Your task to perform on an android device: change text size in settings app Image 0: 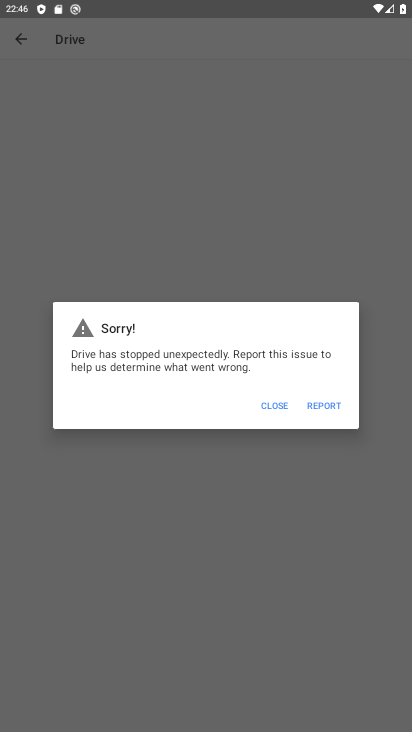
Step 0: press home button
Your task to perform on an android device: change text size in settings app Image 1: 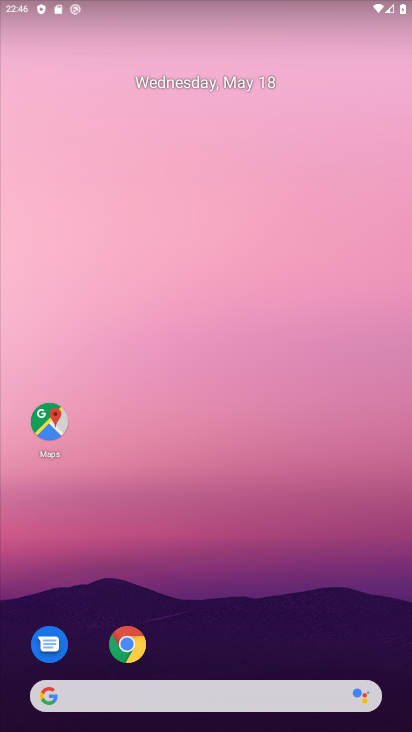
Step 1: drag from (230, 503) to (196, 220)
Your task to perform on an android device: change text size in settings app Image 2: 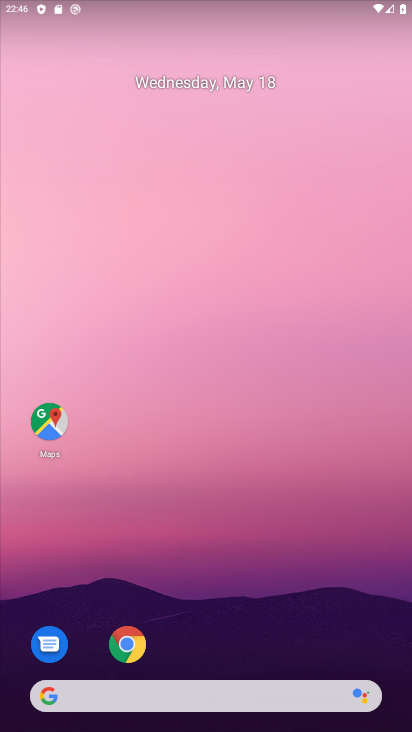
Step 2: drag from (301, 649) to (289, 201)
Your task to perform on an android device: change text size in settings app Image 3: 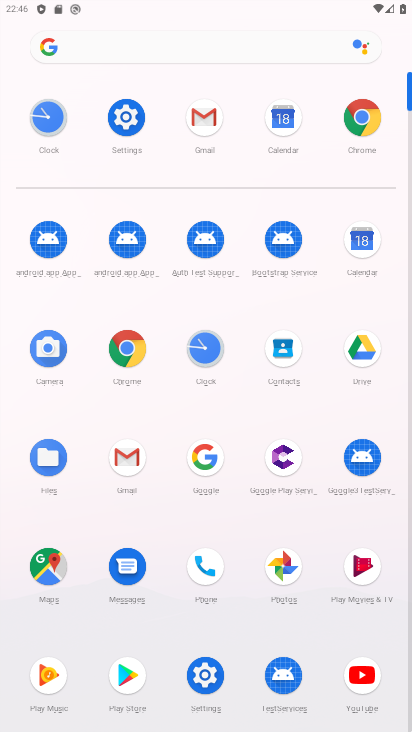
Step 3: click (141, 121)
Your task to perform on an android device: change text size in settings app Image 4: 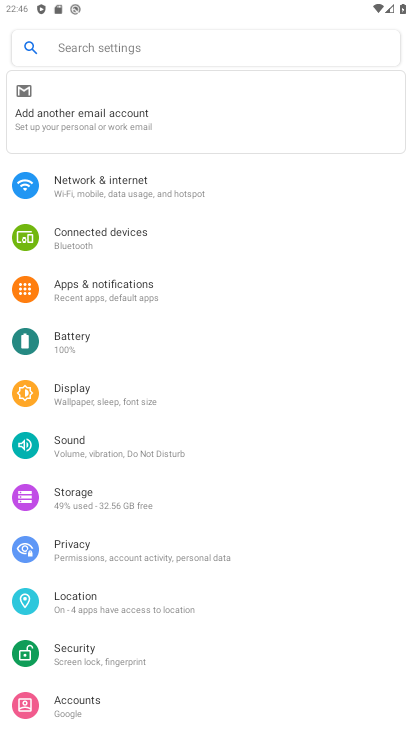
Step 4: drag from (263, 430) to (271, 219)
Your task to perform on an android device: change text size in settings app Image 5: 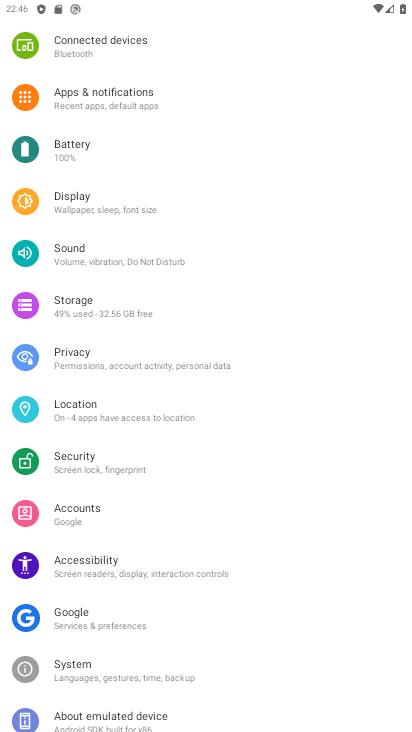
Step 5: click (154, 210)
Your task to perform on an android device: change text size in settings app Image 6: 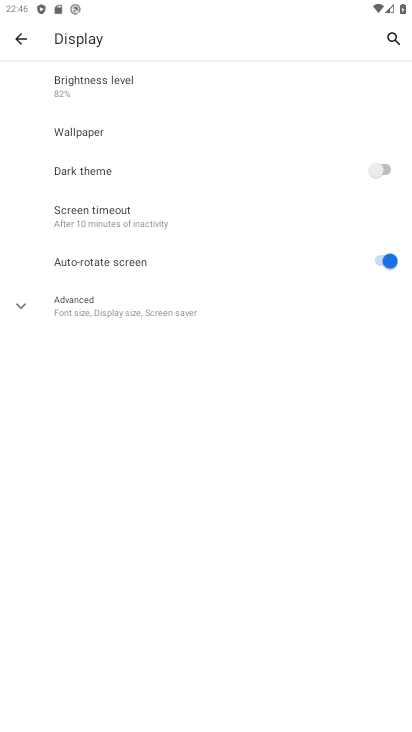
Step 6: click (84, 314)
Your task to perform on an android device: change text size in settings app Image 7: 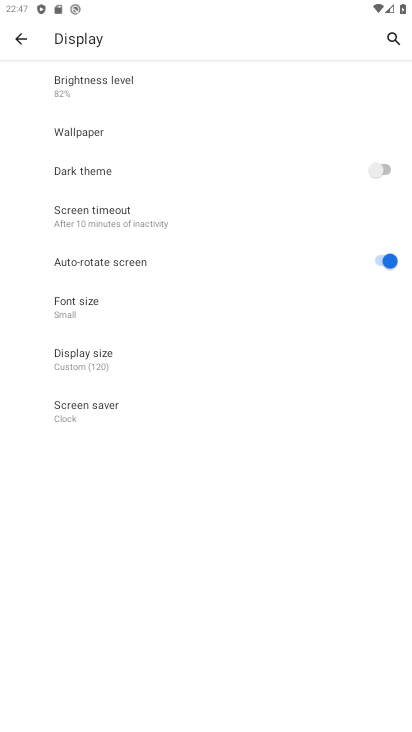
Step 7: click (84, 313)
Your task to perform on an android device: change text size in settings app Image 8: 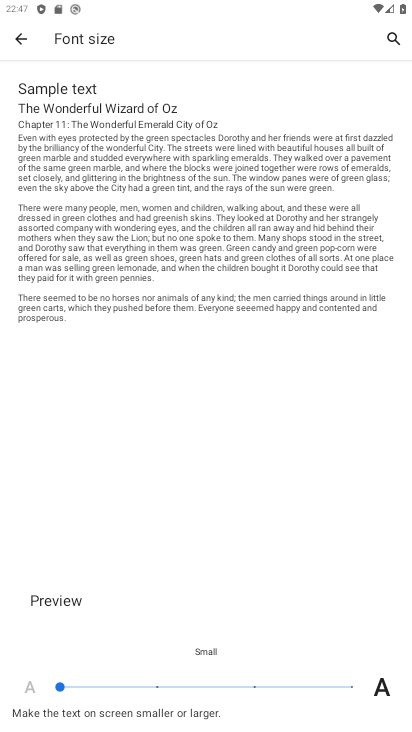
Step 8: click (94, 685)
Your task to perform on an android device: change text size in settings app Image 9: 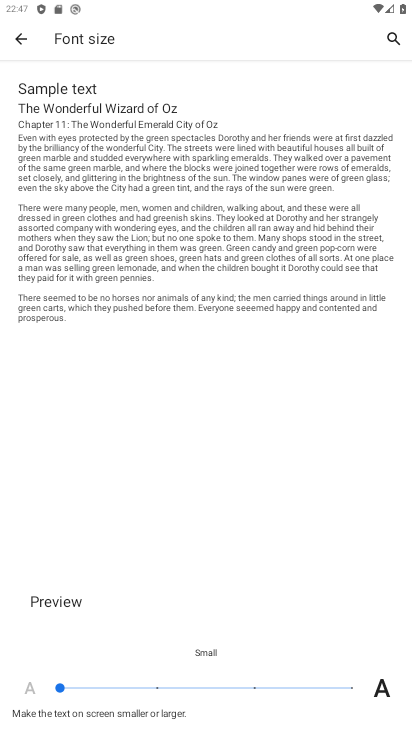
Step 9: drag from (64, 686) to (106, 690)
Your task to perform on an android device: change text size in settings app Image 10: 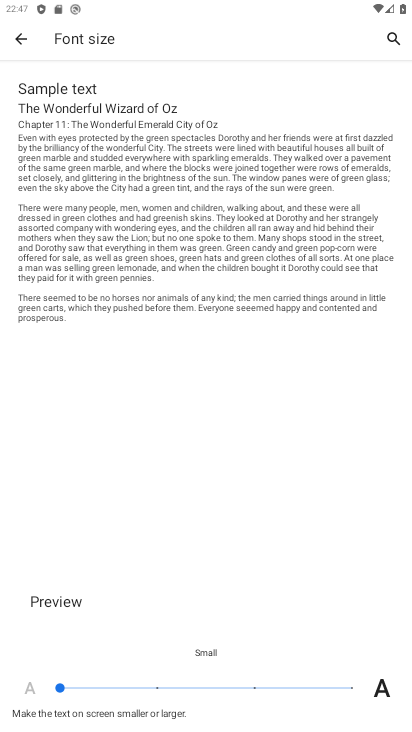
Step 10: click (106, 688)
Your task to perform on an android device: change text size in settings app Image 11: 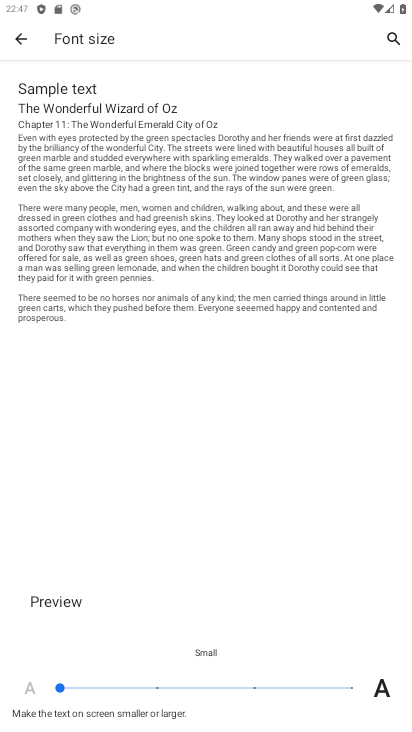
Step 11: click (154, 690)
Your task to perform on an android device: change text size in settings app Image 12: 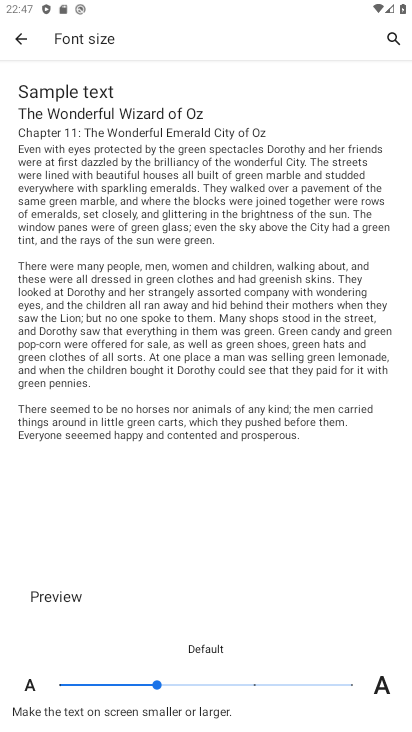
Step 12: task complete